Your task to perform on an android device: change the clock style Image 0: 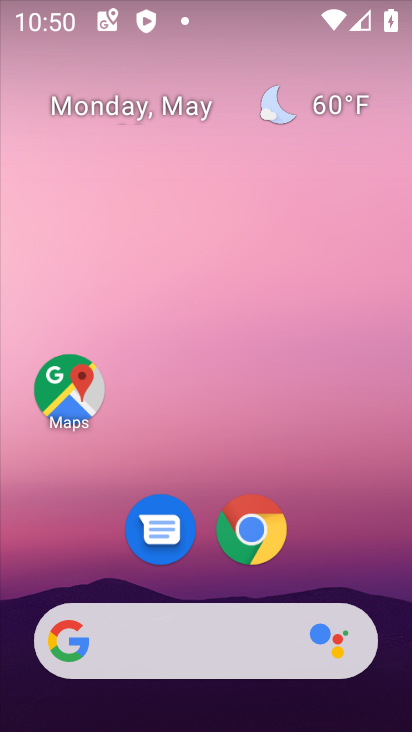
Step 0: drag from (332, 542) to (295, 66)
Your task to perform on an android device: change the clock style Image 1: 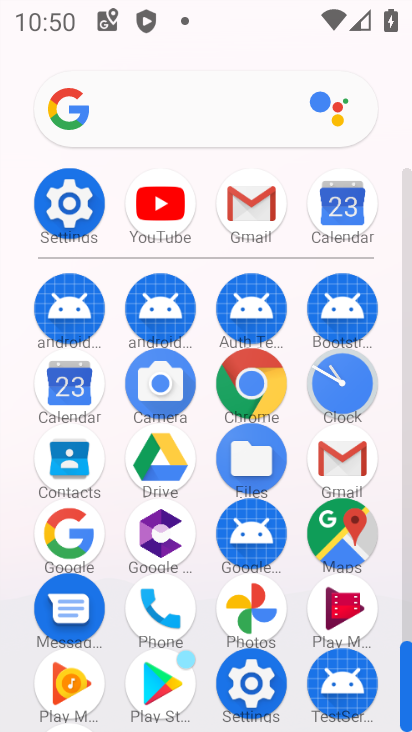
Step 1: click (334, 385)
Your task to perform on an android device: change the clock style Image 2: 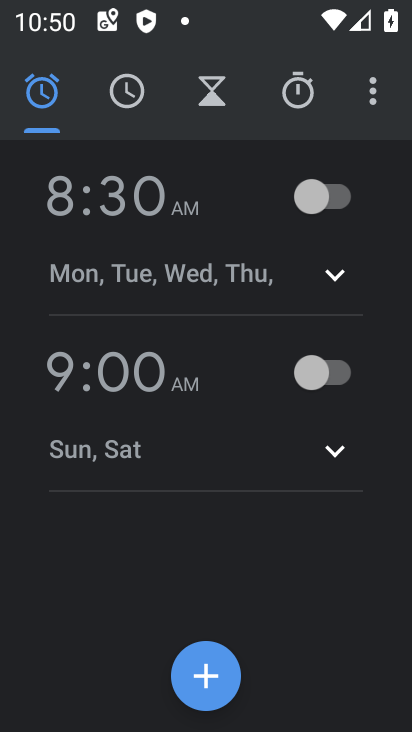
Step 2: click (373, 71)
Your task to perform on an android device: change the clock style Image 3: 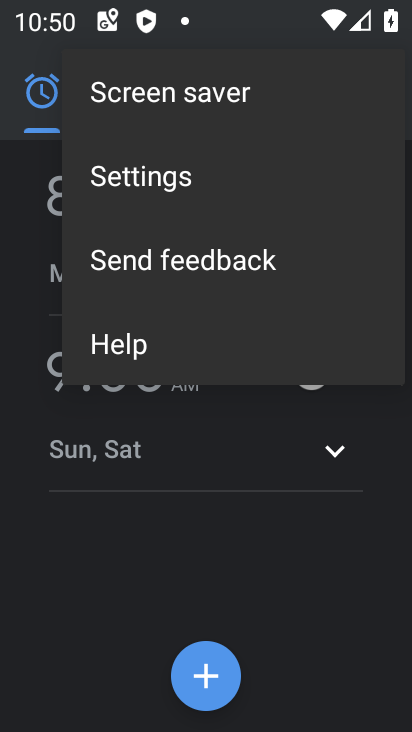
Step 3: click (166, 179)
Your task to perform on an android device: change the clock style Image 4: 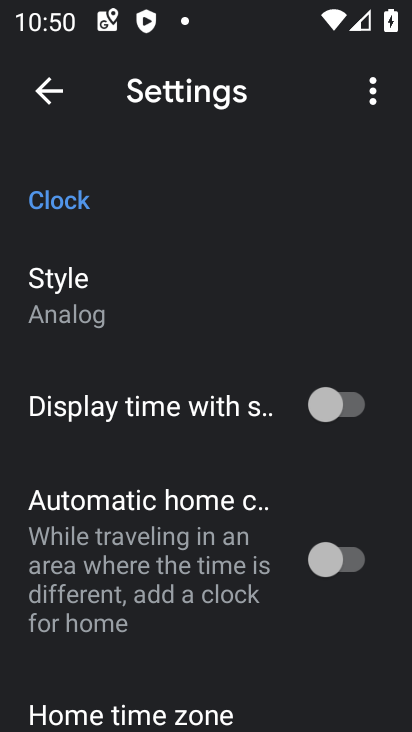
Step 4: click (73, 277)
Your task to perform on an android device: change the clock style Image 5: 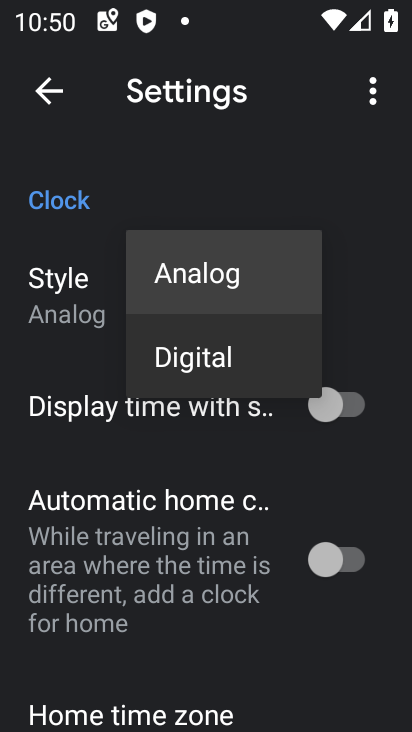
Step 5: click (171, 354)
Your task to perform on an android device: change the clock style Image 6: 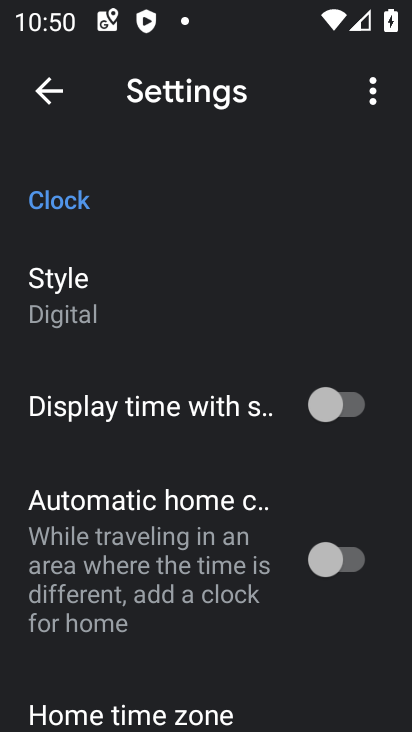
Step 6: task complete